Your task to perform on an android device: toggle wifi Image 0: 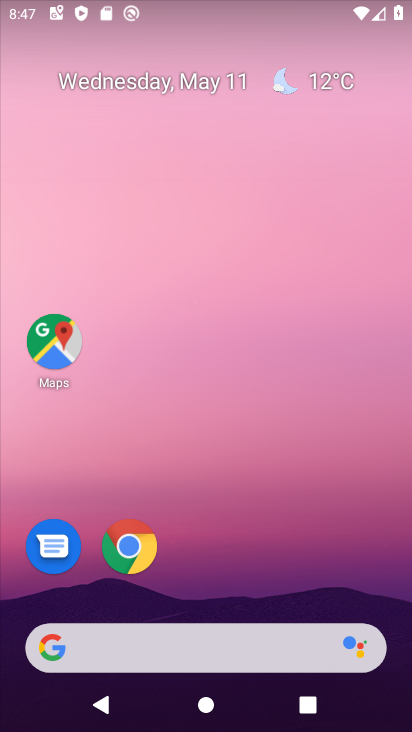
Step 0: drag from (380, 607) to (328, 135)
Your task to perform on an android device: toggle wifi Image 1: 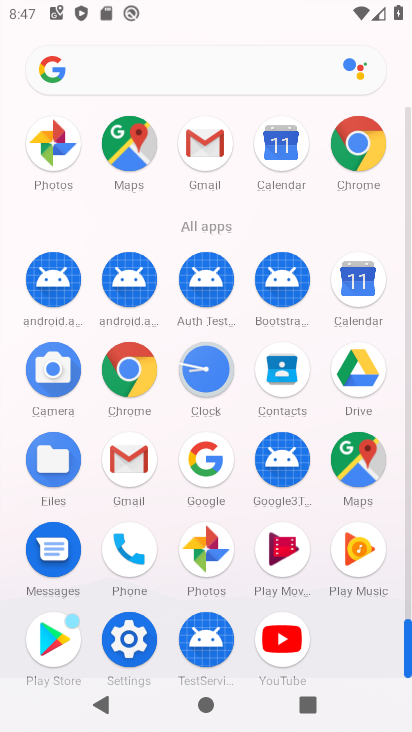
Step 1: click (126, 636)
Your task to perform on an android device: toggle wifi Image 2: 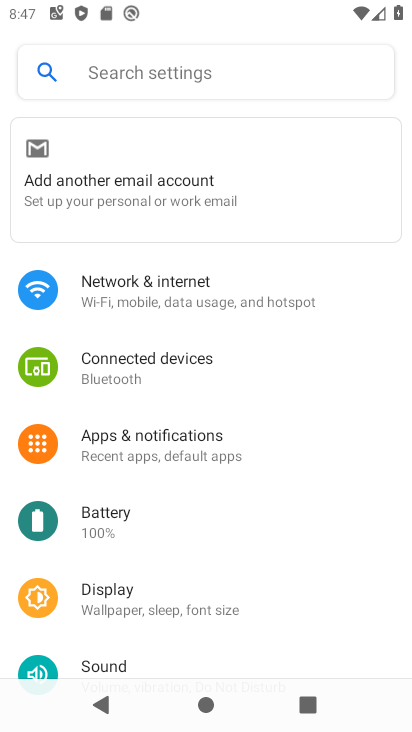
Step 2: click (132, 273)
Your task to perform on an android device: toggle wifi Image 3: 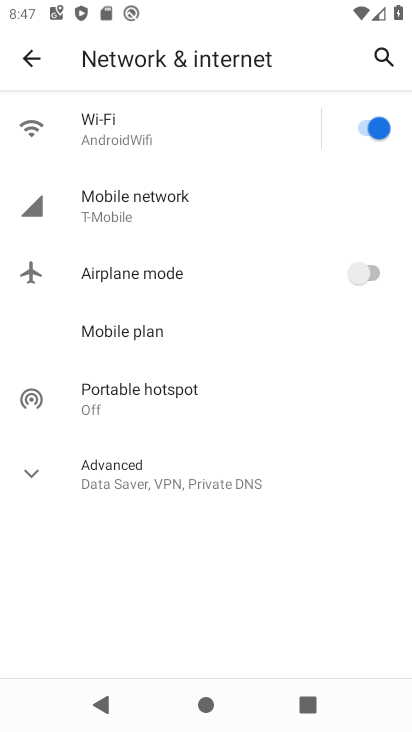
Step 3: click (366, 124)
Your task to perform on an android device: toggle wifi Image 4: 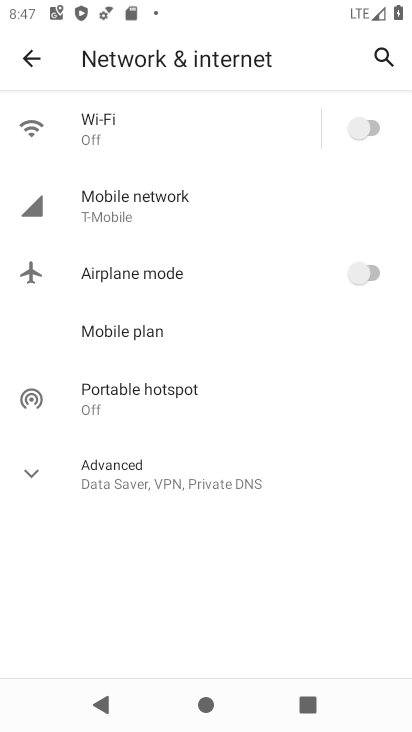
Step 4: task complete